Your task to perform on an android device: Go to internet settings Image 0: 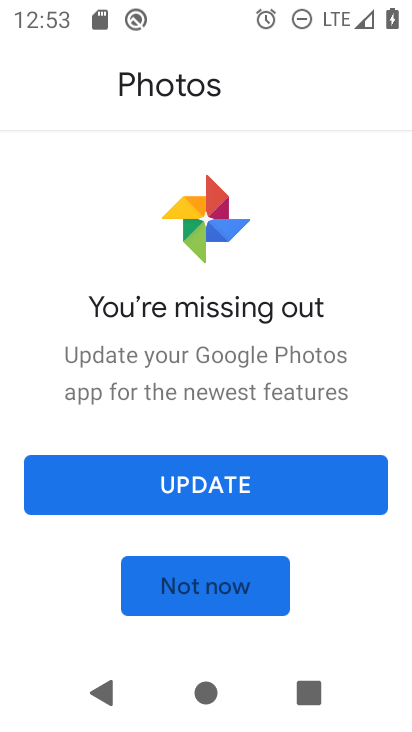
Step 0: press home button
Your task to perform on an android device: Go to internet settings Image 1: 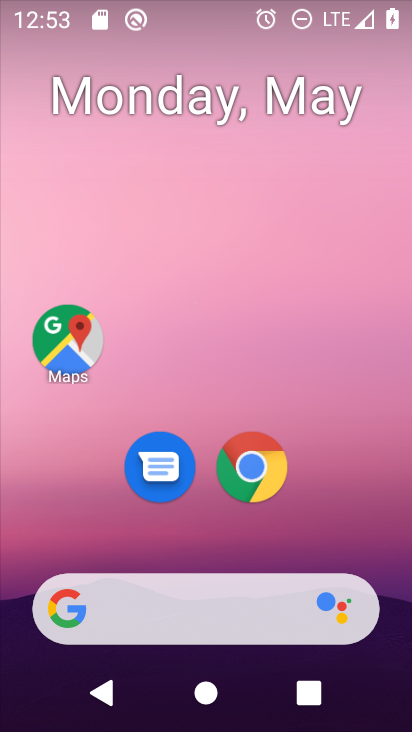
Step 1: drag from (374, 567) to (402, 25)
Your task to perform on an android device: Go to internet settings Image 2: 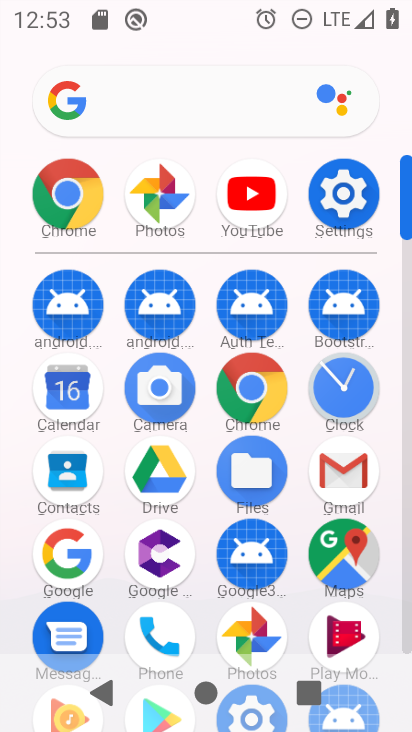
Step 2: click (353, 196)
Your task to perform on an android device: Go to internet settings Image 3: 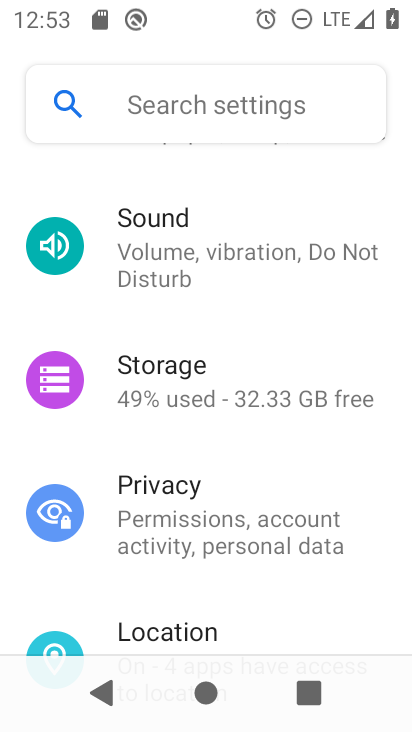
Step 3: drag from (383, 327) to (398, 633)
Your task to perform on an android device: Go to internet settings Image 4: 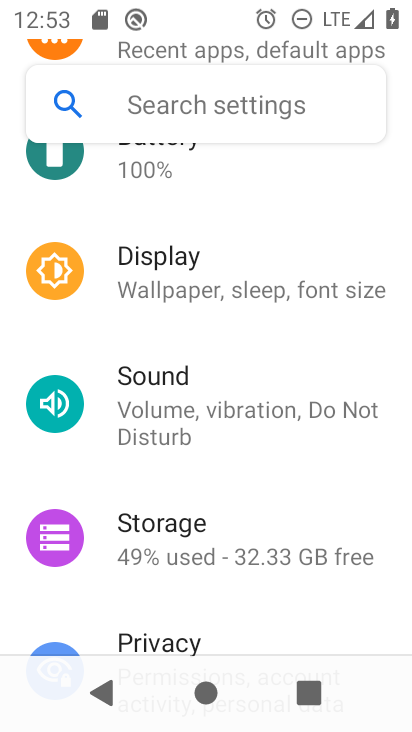
Step 4: drag from (371, 232) to (368, 559)
Your task to perform on an android device: Go to internet settings Image 5: 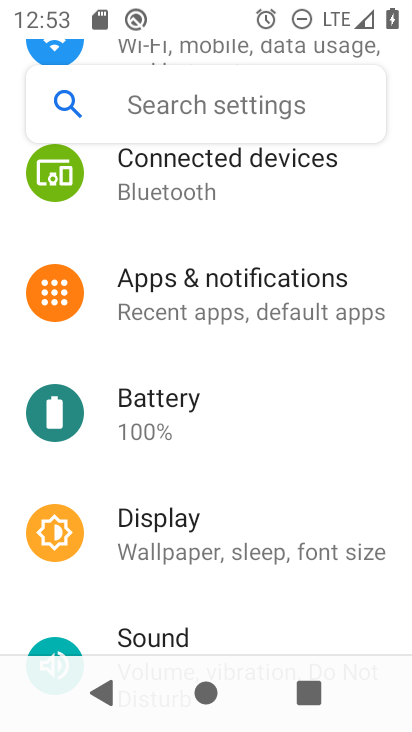
Step 5: drag from (375, 253) to (376, 604)
Your task to perform on an android device: Go to internet settings Image 6: 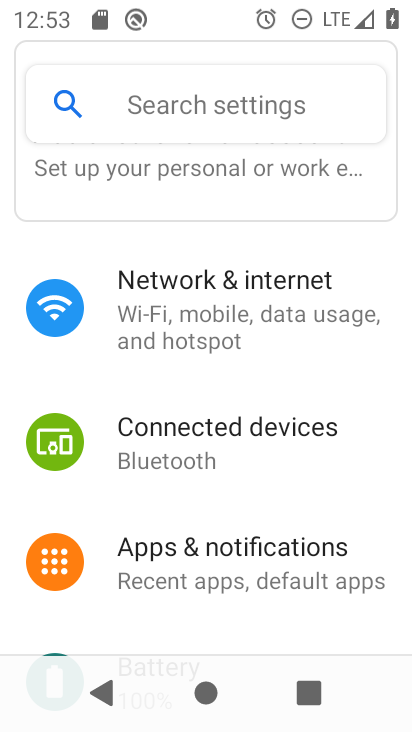
Step 6: click (217, 322)
Your task to perform on an android device: Go to internet settings Image 7: 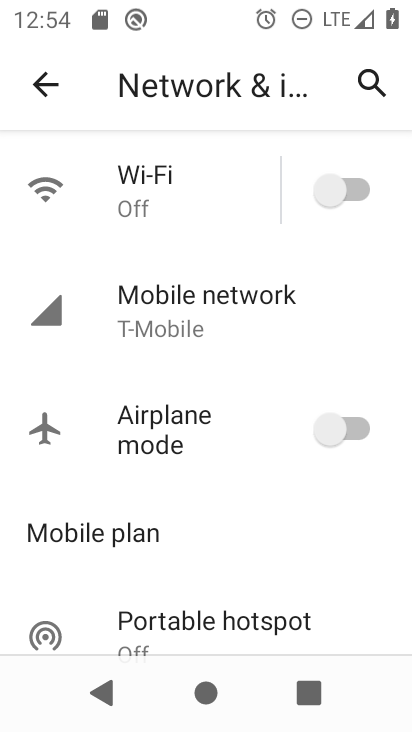
Step 7: task complete